Your task to perform on an android device: Turn on the flashlight Image 0: 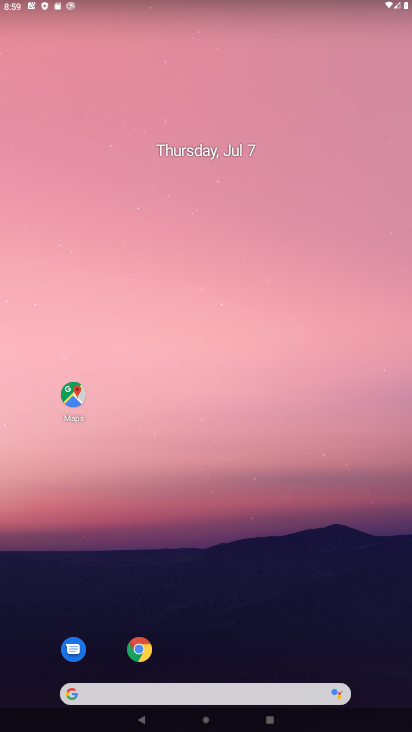
Step 0: drag from (220, 713) to (220, 146)
Your task to perform on an android device: Turn on the flashlight Image 1: 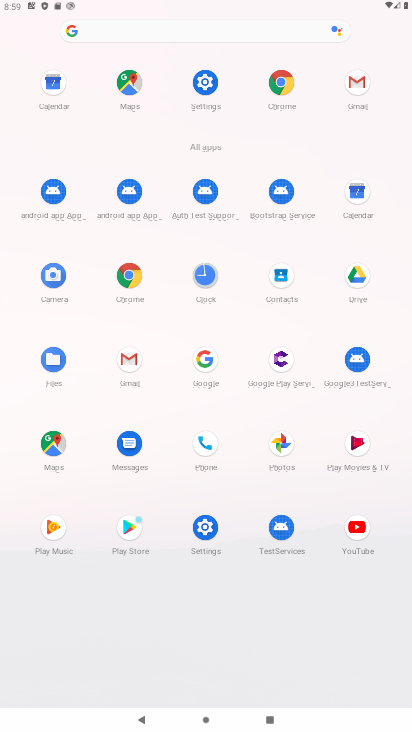
Step 1: click (199, 525)
Your task to perform on an android device: Turn on the flashlight Image 2: 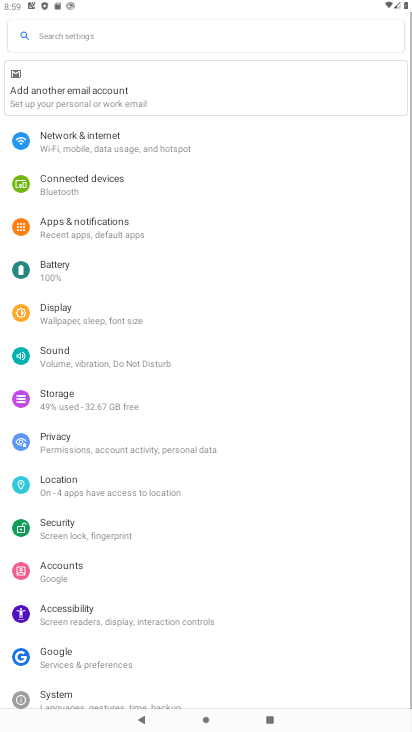
Step 2: task complete